Your task to perform on an android device: Open the web browser Image 0: 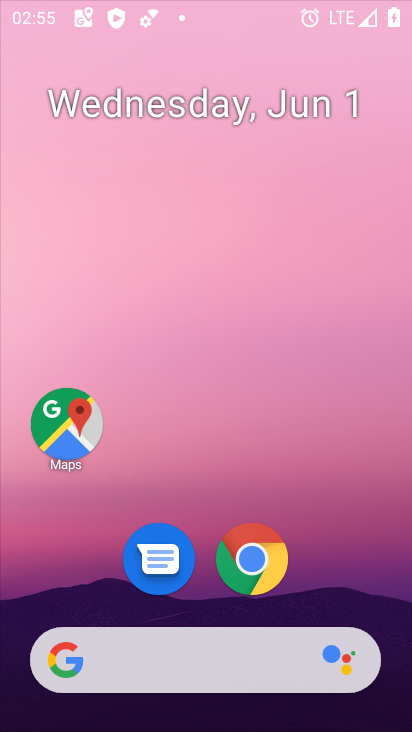
Step 0: press home button
Your task to perform on an android device: Open the web browser Image 1: 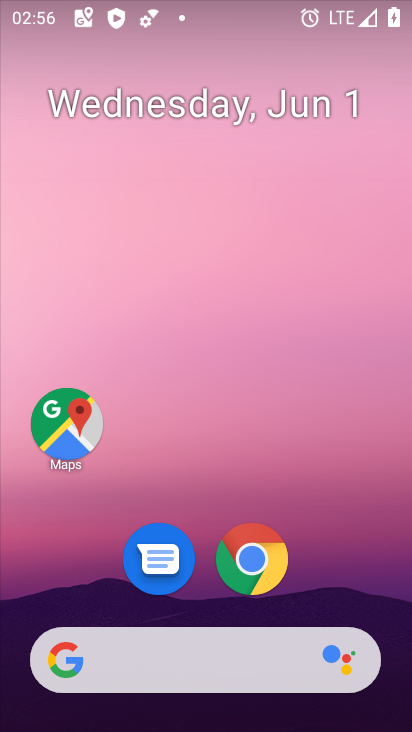
Step 1: click (69, 668)
Your task to perform on an android device: Open the web browser Image 2: 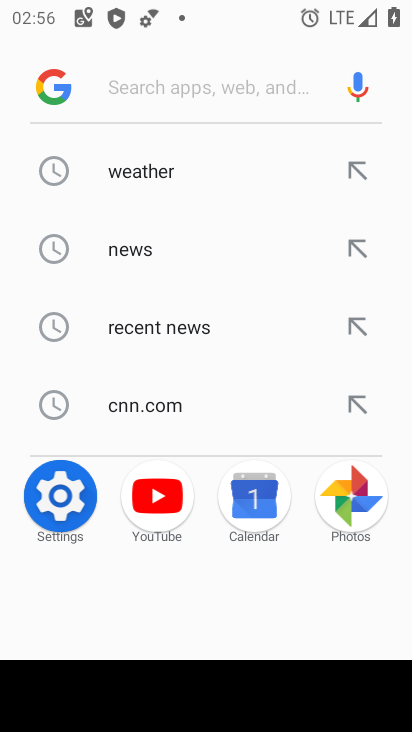
Step 2: task complete